Your task to perform on an android device: turn off notifications settings in the gmail app Image 0: 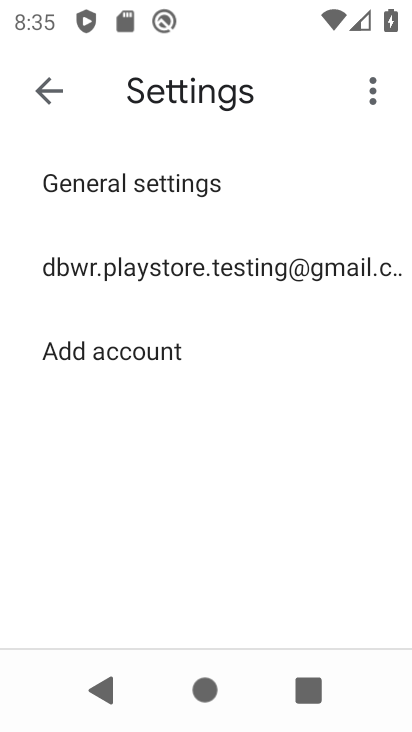
Step 0: press home button
Your task to perform on an android device: turn off notifications settings in the gmail app Image 1: 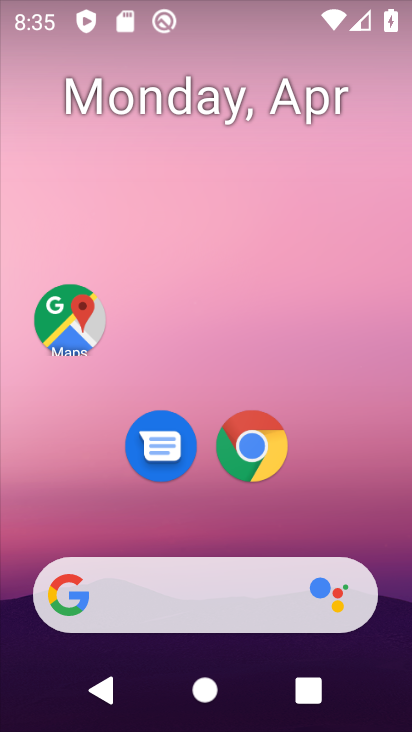
Step 1: drag from (325, 505) to (328, 60)
Your task to perform on an android device: turn off notifications settings in the gmail app Image 2: 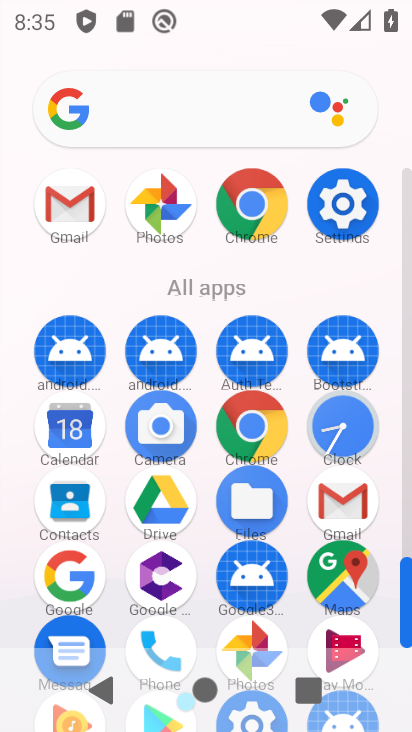
Step 2: click (338, 507)
Your task to perform on an android device: turn off notifications settings in the gmail app Image 3: 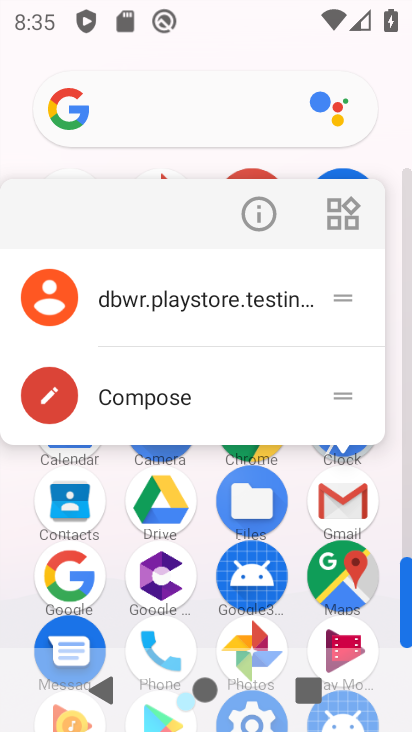
Step 3: click (338, 507)
Your task to perform on an android device: turn off notifications settings in the gmail app Image 4: 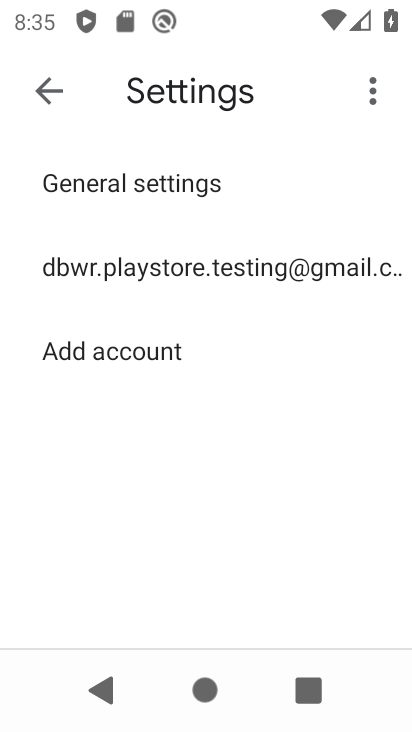
Step 4: click (231, 263)
Your task to perform on an android device: turn off notifications settings in the gmail app Image 5: 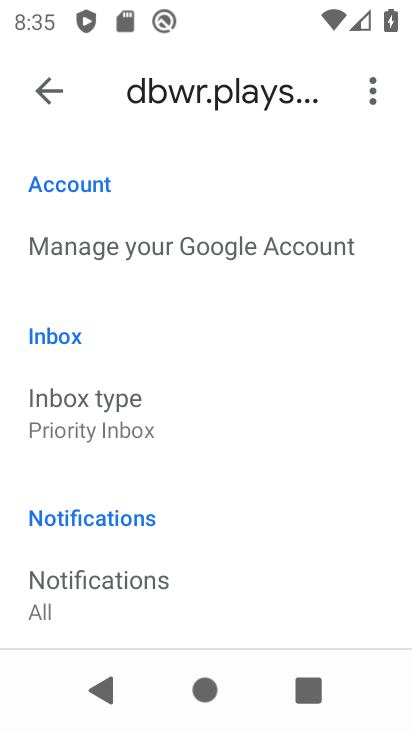
Step 5: drag from (366, 527) to (370, 288)
Your task to perform on an android device: turn off notifications settings in the gmail app Image 6: 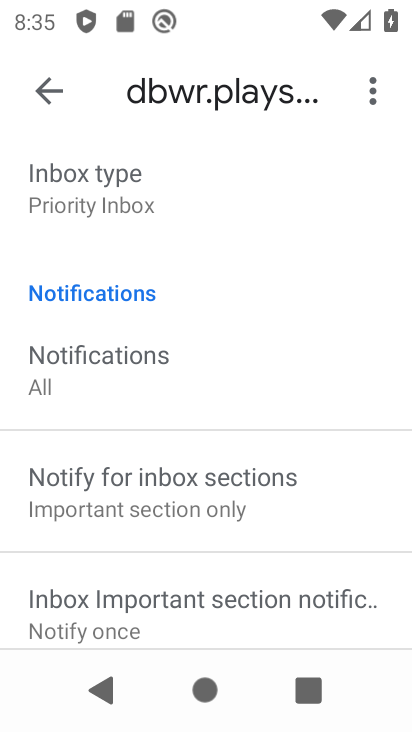
Step 6: drag from (334, 486) to (345, 222)
Your task to perform on an android device: turn off notifications settings in the gmail app Image 7: 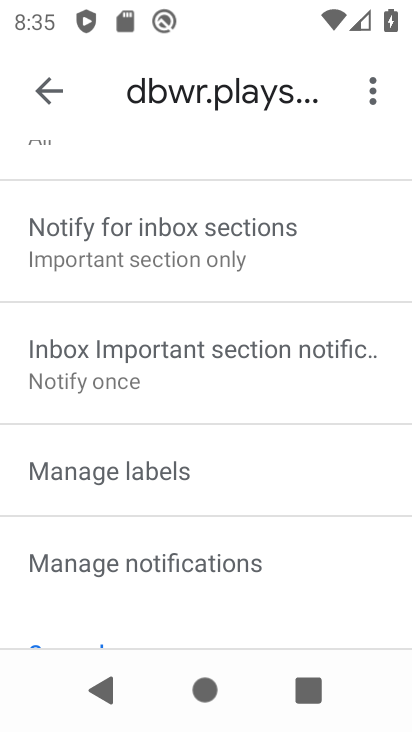
Step 7: drag from (333, 535) to (338, 258)
Your task to perform on an android device: turn off notifications settings in the gmail app Image 8: 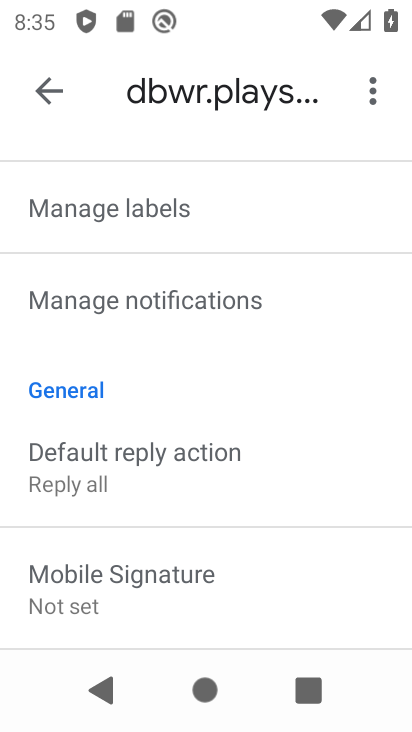
Step 8: click (221, 306)
Your task to perform on an android device: turn off notifications settings in the gmail app Image 9: 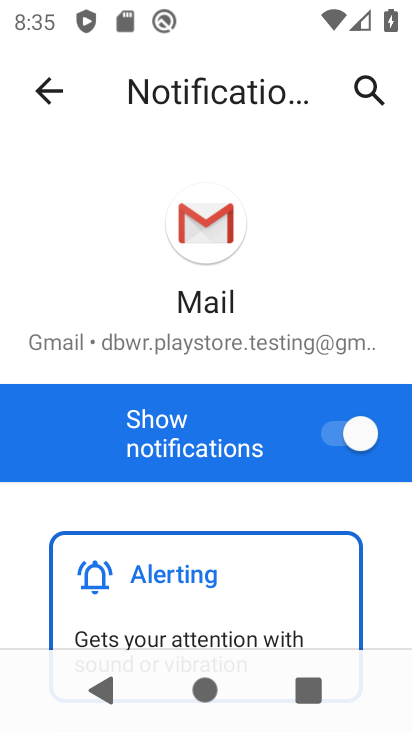
Step 9: click (354, 443)
Your task to perform on an android device: turn off notifications settings in the gmail app Image 10: 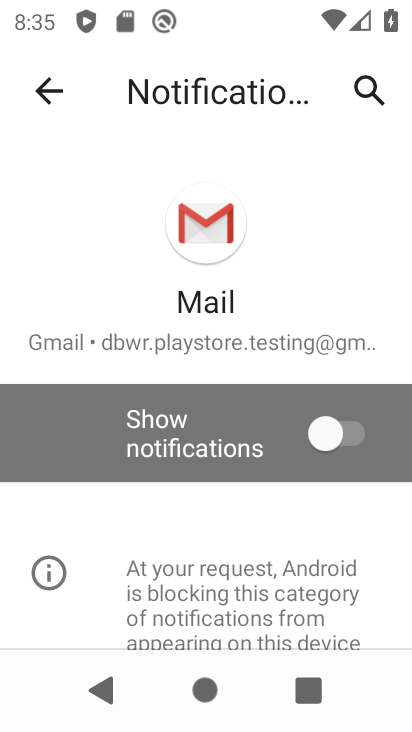
Step 10: task complete